Your task to perform on an android device: check out phone information Image 0: 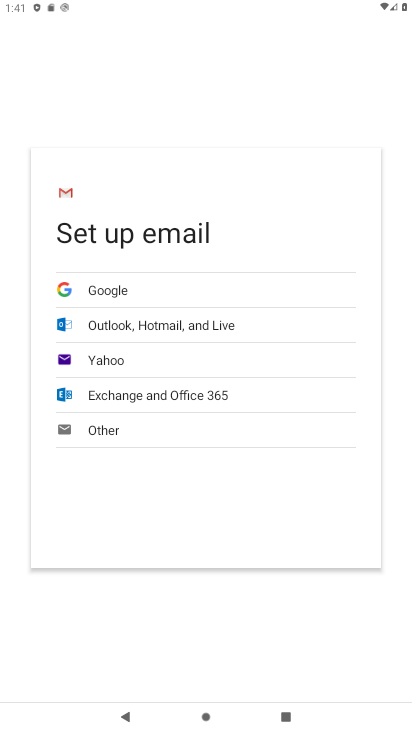
Step 0: press home button
Your task to perform on an android device: check out phone information Image 1: 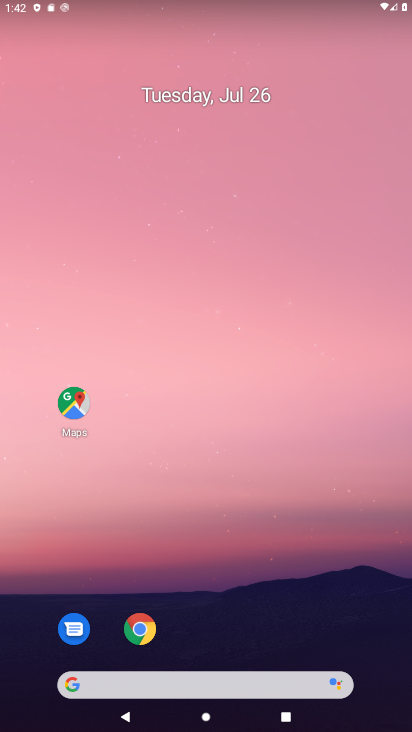
Step 1: drag from (377, 680) to (332, 97)
Your task to perform on an android device: check out phone information Image 2: 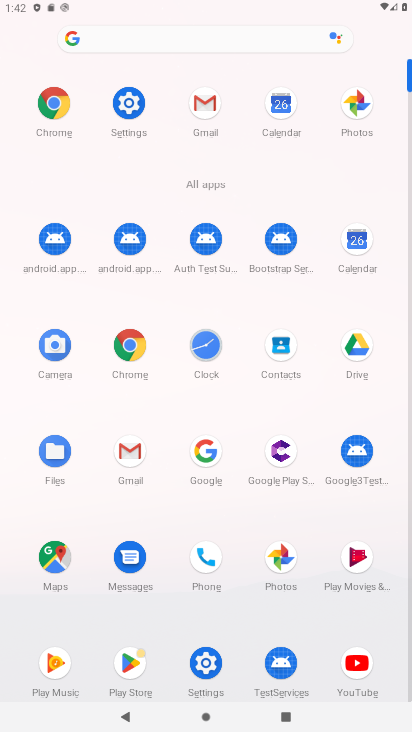
Step 2: click (207, 662)
Your task to perform on an android device: check out phone information Image 3: 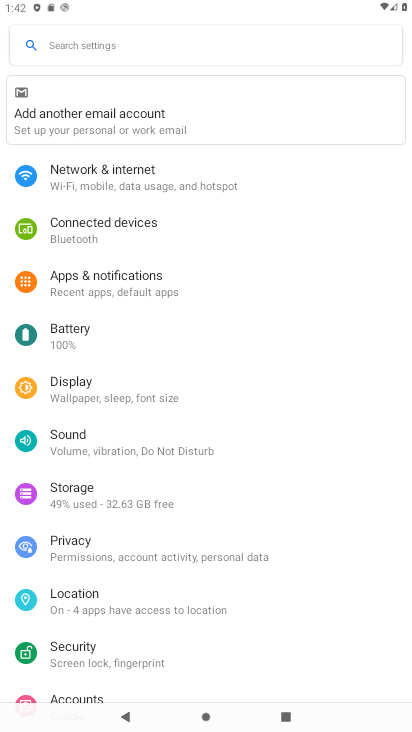
Step 3: drag from (276, 669) to (292, 275)
Your task to perform on an android device: check out phone information Image 4: 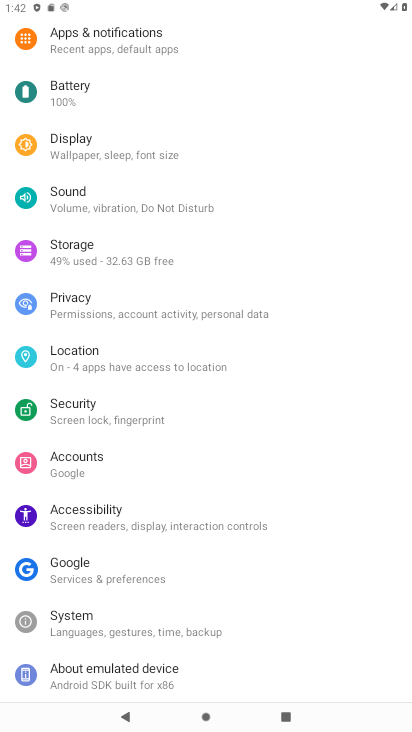
Step 4: click (98, 674)
Your task to perform on an android device: check out phone information Image 5: 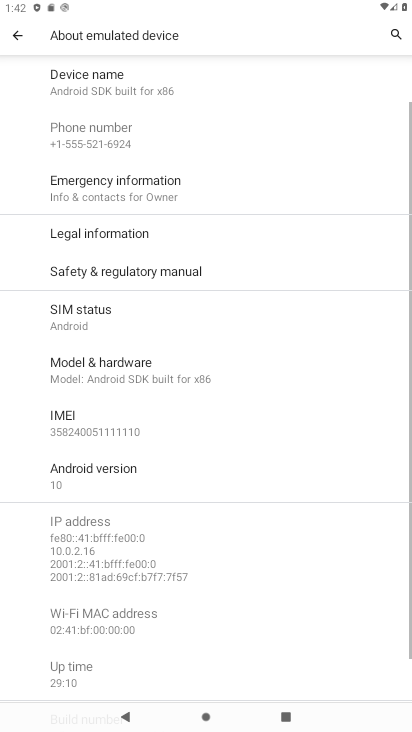
Step 5: task complete